Your task to perform on an android device: Go to calendar. Show me events next week Image 0: 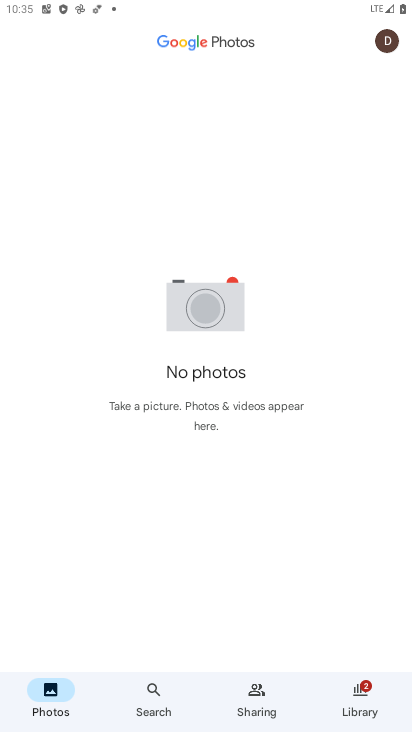
Step 0: press home button
Your task to perform on an android device: Go to calendar. Show me events next week Image 1: 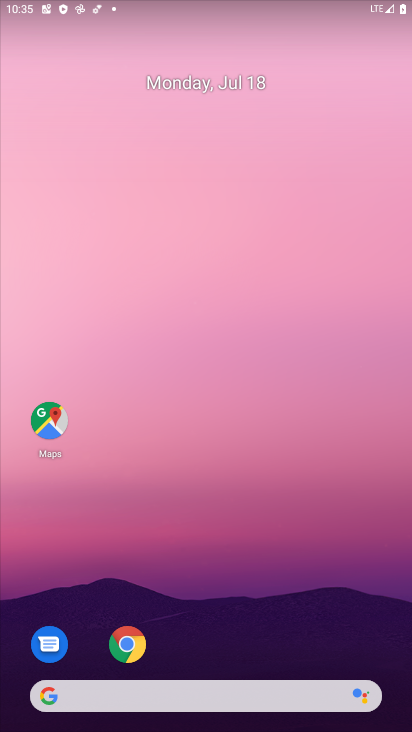
Step 1: drag from (345, 622) to (358, 166)
Your task to perform on an android device: Go to calendar. Show me events next week Image 2: 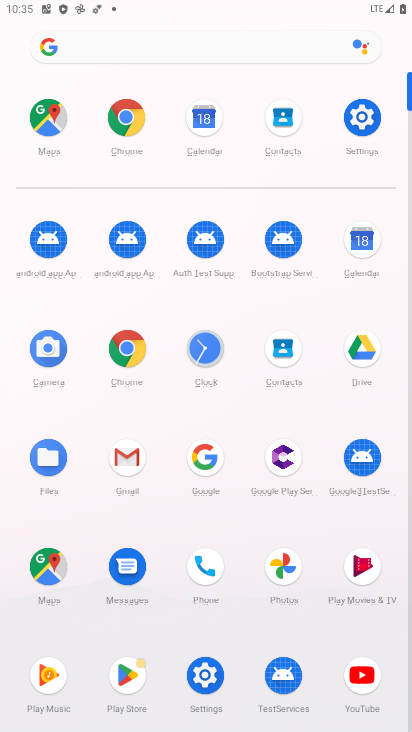
Step 2: click (362, 251)
Your task to perform on an android device: Go to calendar. Show me events next week Image 3: 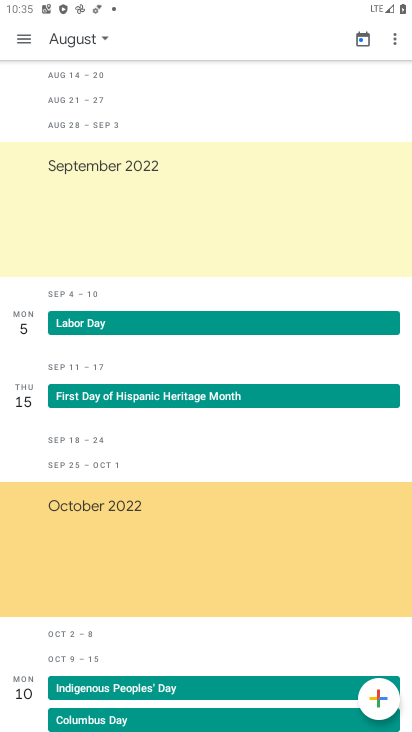
Step 3: drag from (309, 190) to (301, 287)
Your task to perform on an android device: Go to calendar. Show me events next week Image 4: 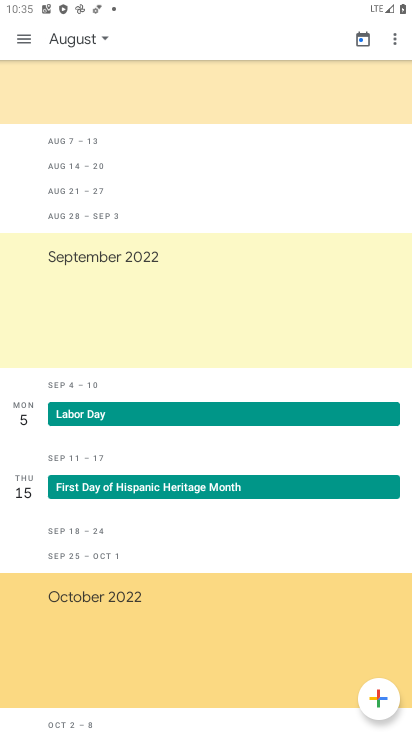
Step 4: drag from (270, 193) to (263, 299)
Your task to perform on an android device: Go to calendar. Show me events next week Image 5: 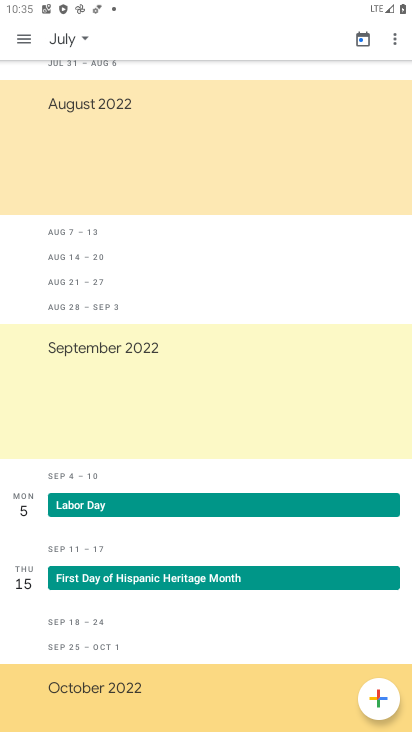
Step 5: drag from (251, 183) to (240, 353)
Your task to perform on an android device: Go to calendar. Show me events next week Image 6: 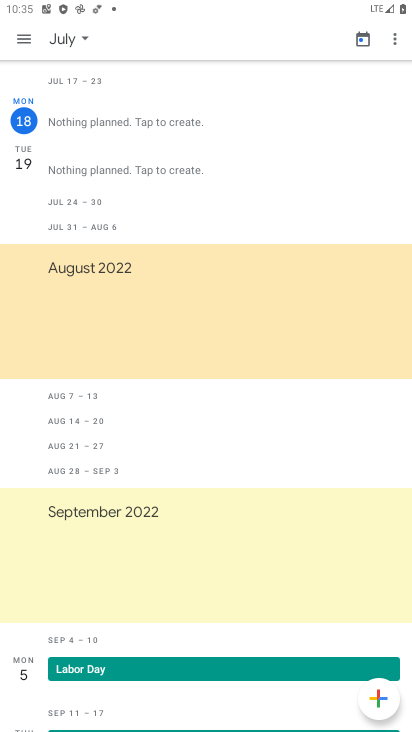
Step 6: click (227, 206)
Your task to perform on an android device: Go to calendar. Show me events next week Image 7: 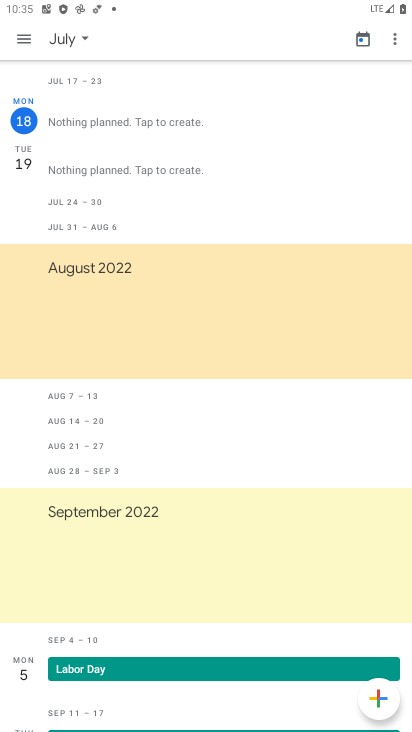
Step 7: click (79, 40)
Your task to perform on an android device: Go to calendar. Show me events next week Image 8: 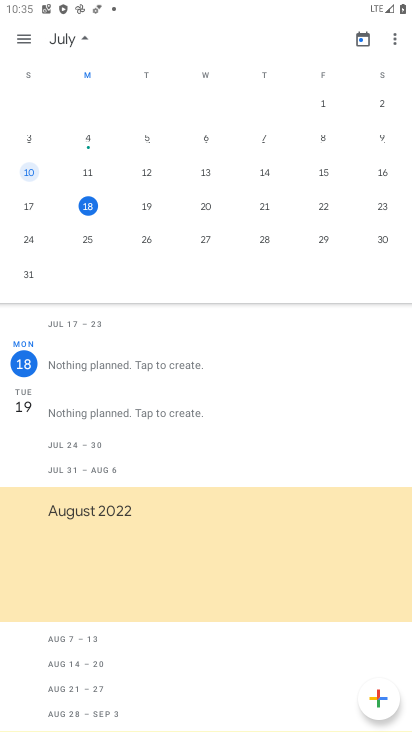
Step 8: click (92, 236)
Your task to perform on an android device: Go to calendar. Show me events next week Image 9: 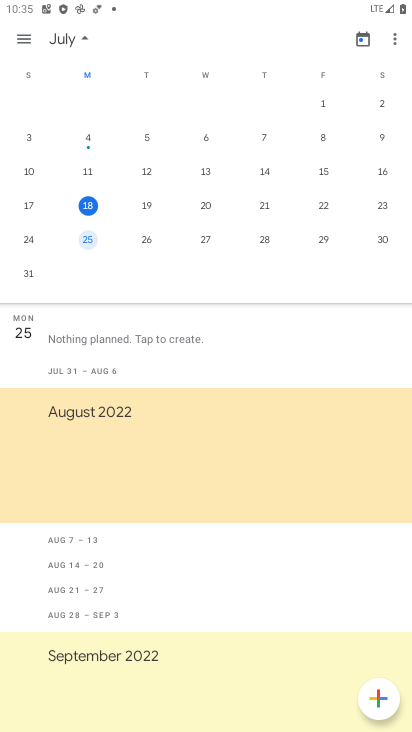
Step 9: task complete